Your task to perform on an android device: delete location history Image 0: 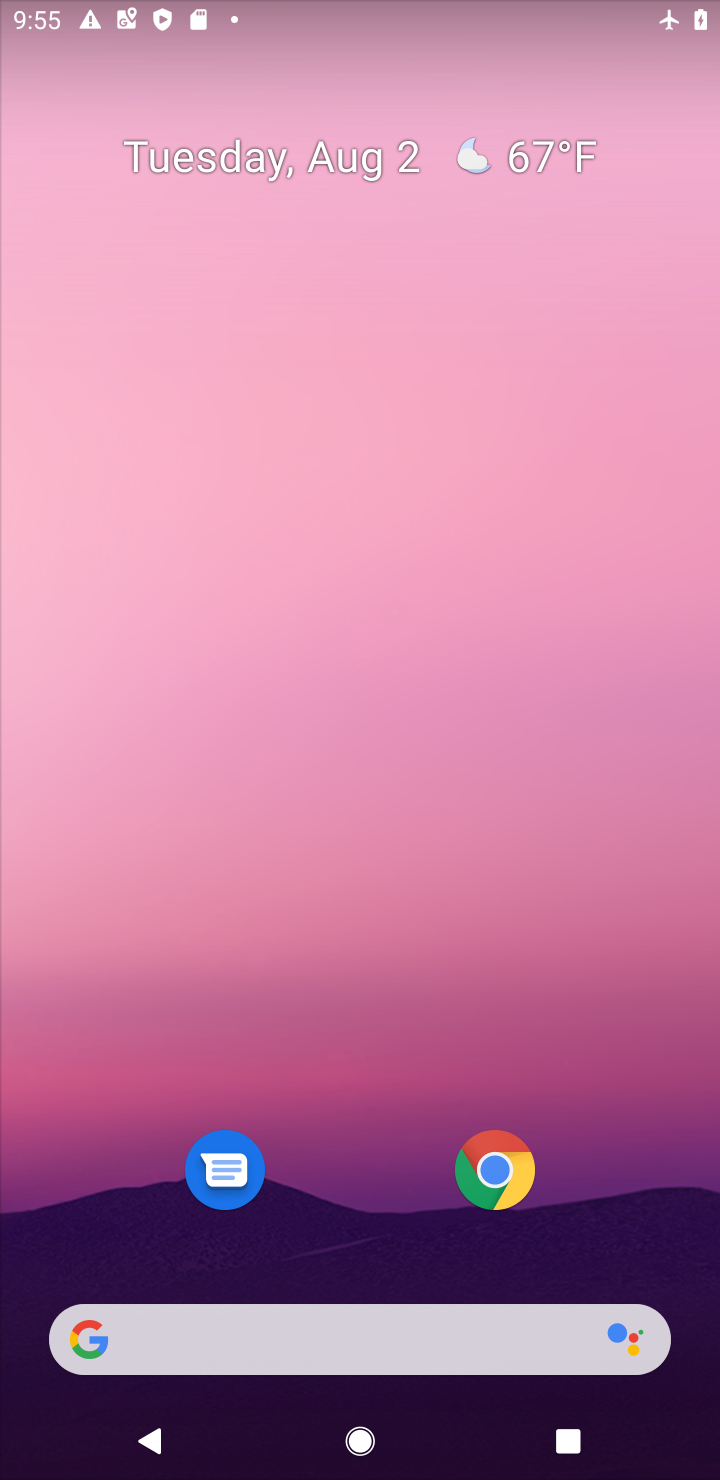
Step 0: drag from (302, 665) to (244, 139)
Your task to perform on an android device: delete location history Image 1: 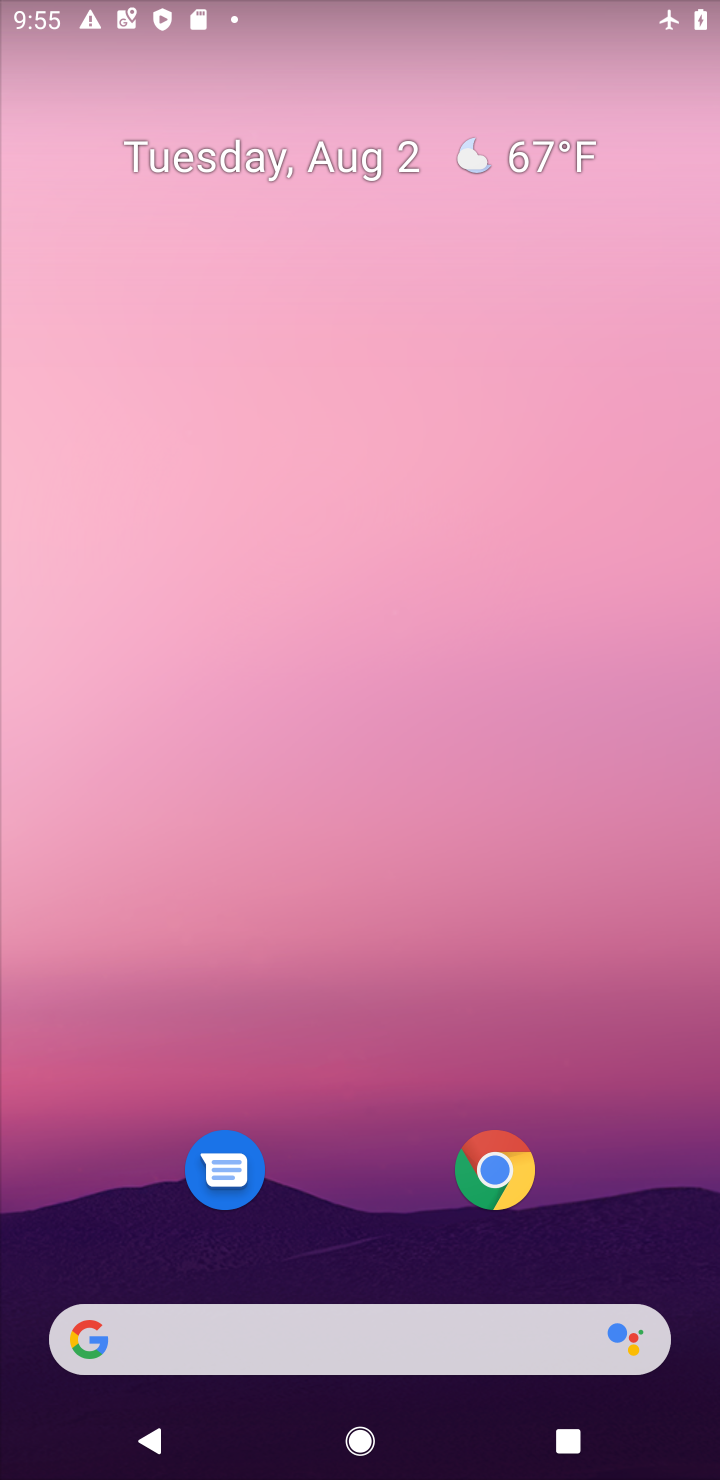
Step 1: drag from (342, 943) to (410, 116)
Your task to perform on an android device: delete location history Image 2: 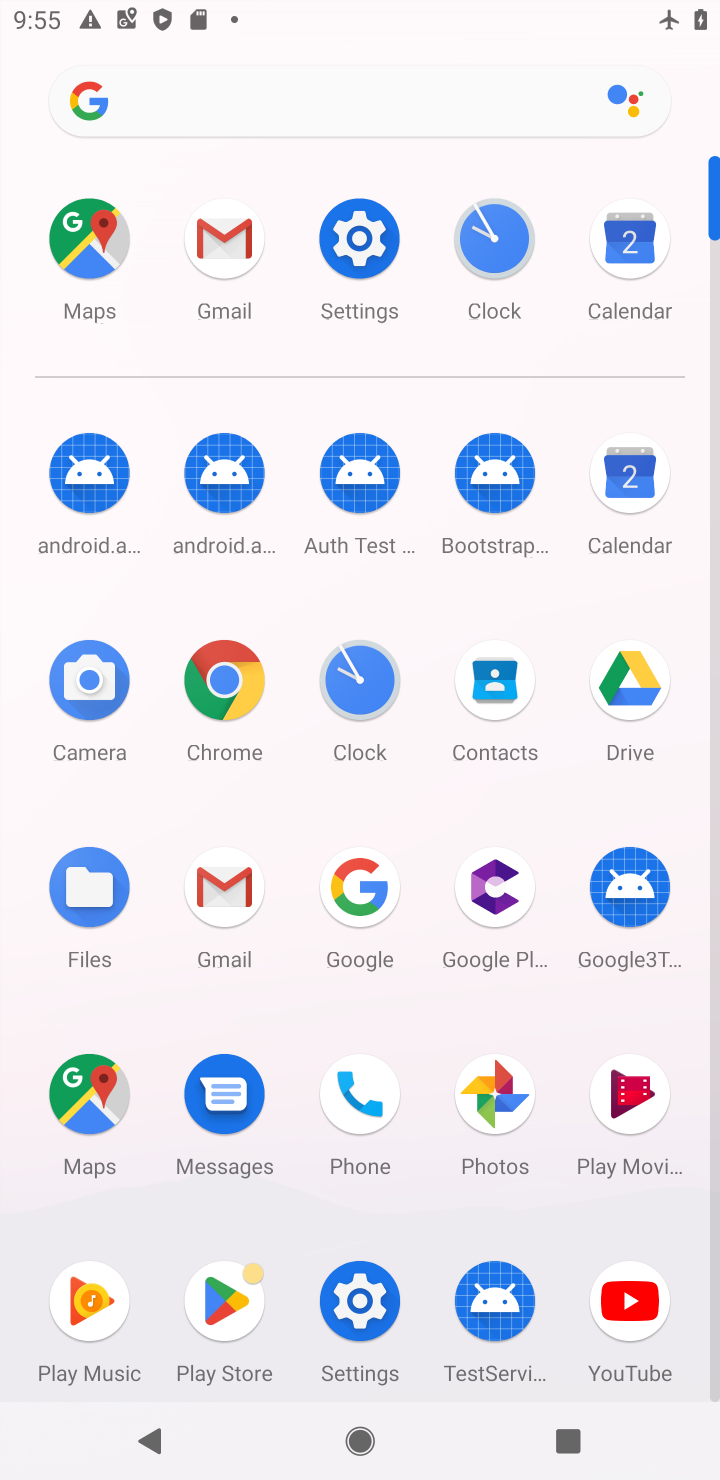
Step 2: click (94, 1122)
Your task to perform on an android device: delete location history Image 3: 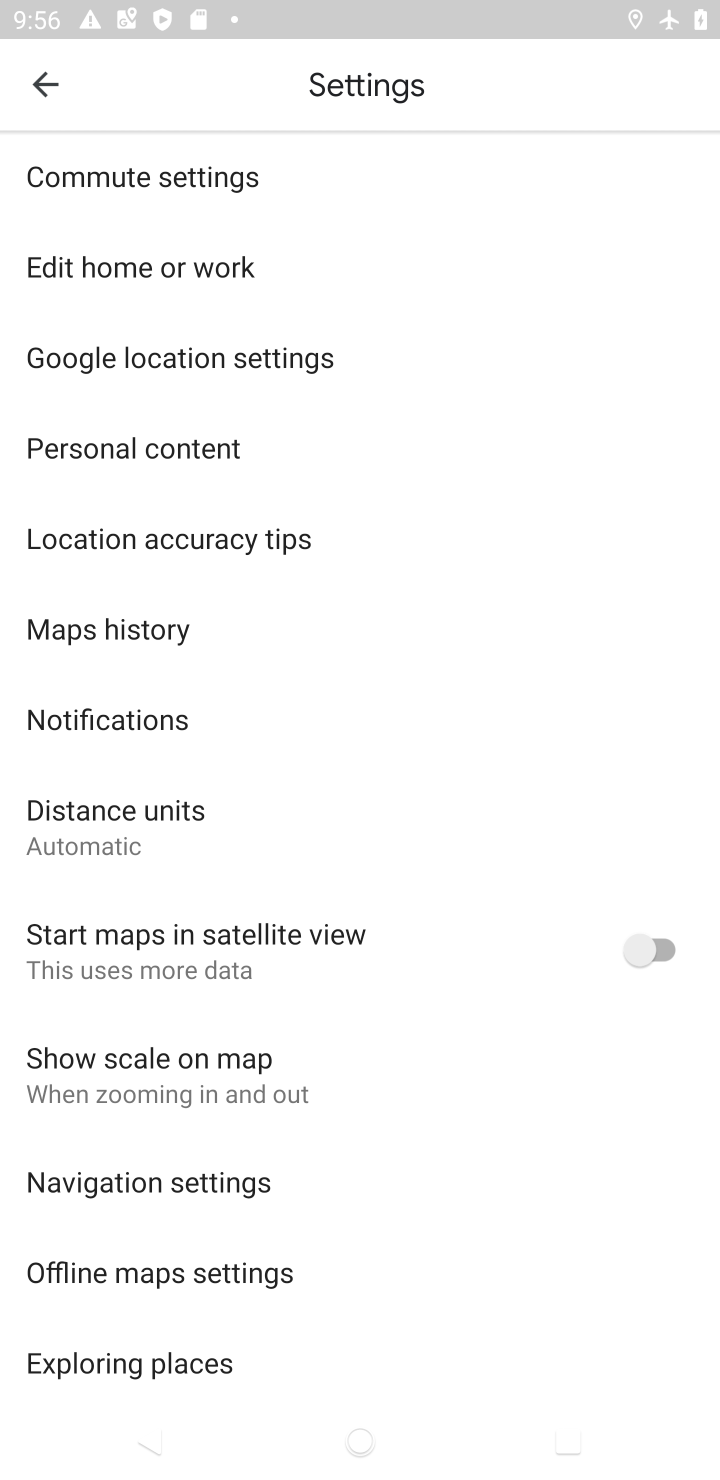
Step 3: click (40, 86)
Your task to perform on an android device: delete location history Image 4: 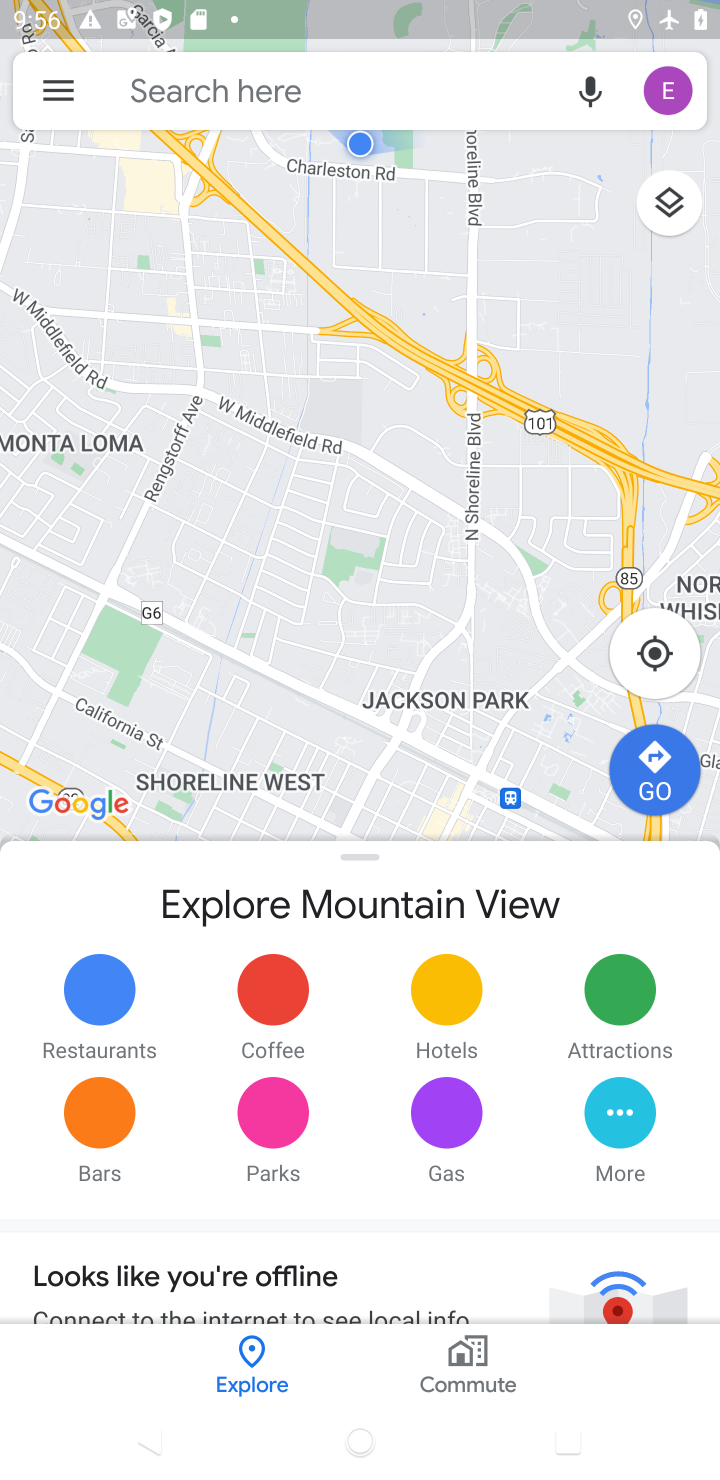
Step 4: click (666, 106)
Your task to perform on an android device: delete location history Image 5: 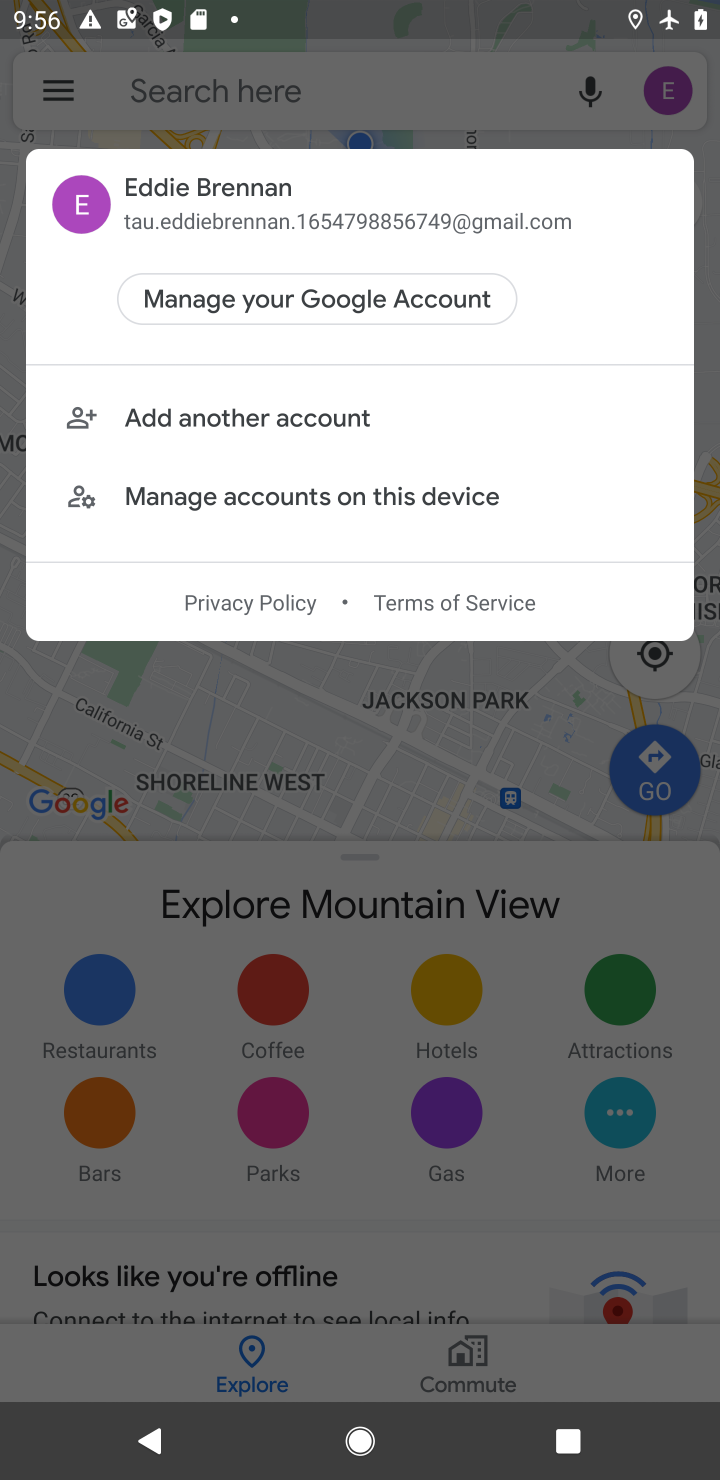
Step 5: click (221, 962)
Your task to perform on an android device: delete location history Image 6: 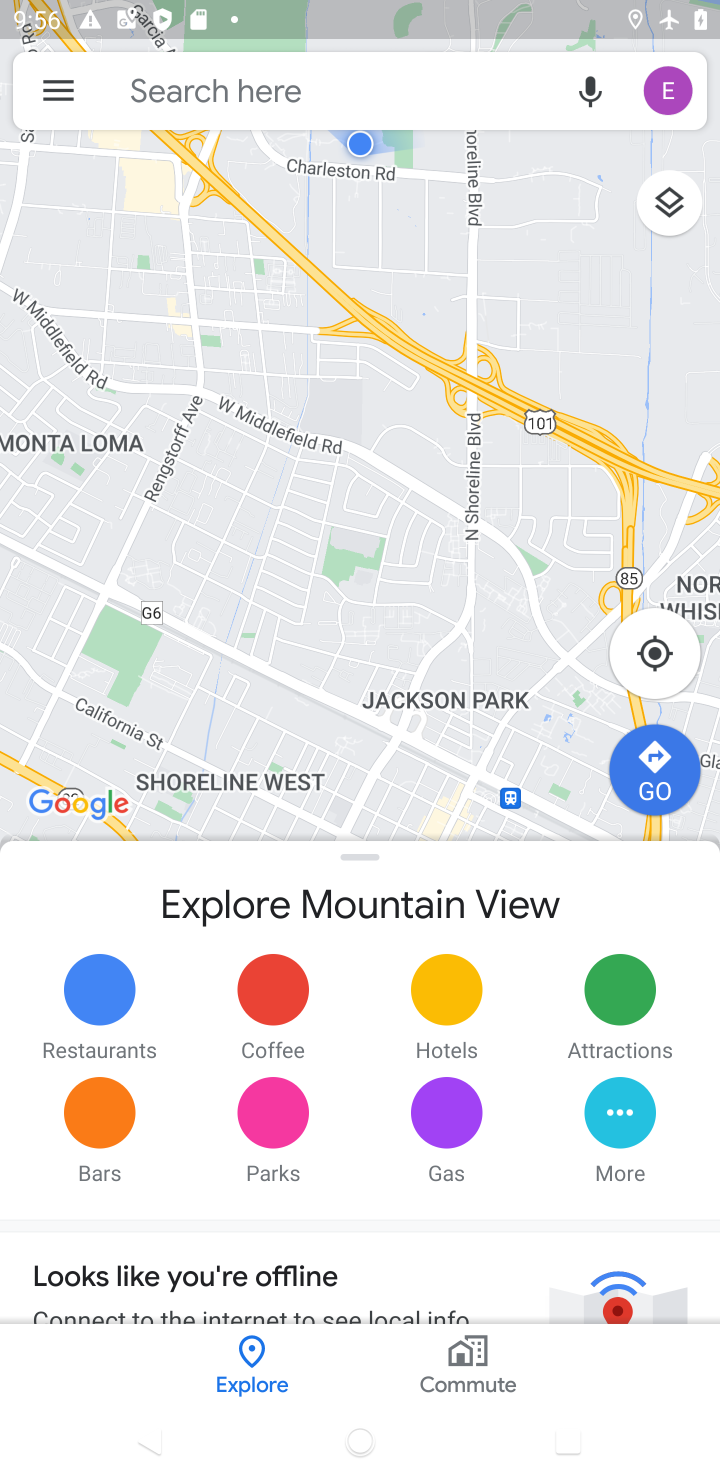
Step 6: click (57, 82)
Your task to perform on an android device: delete location history Image 7: 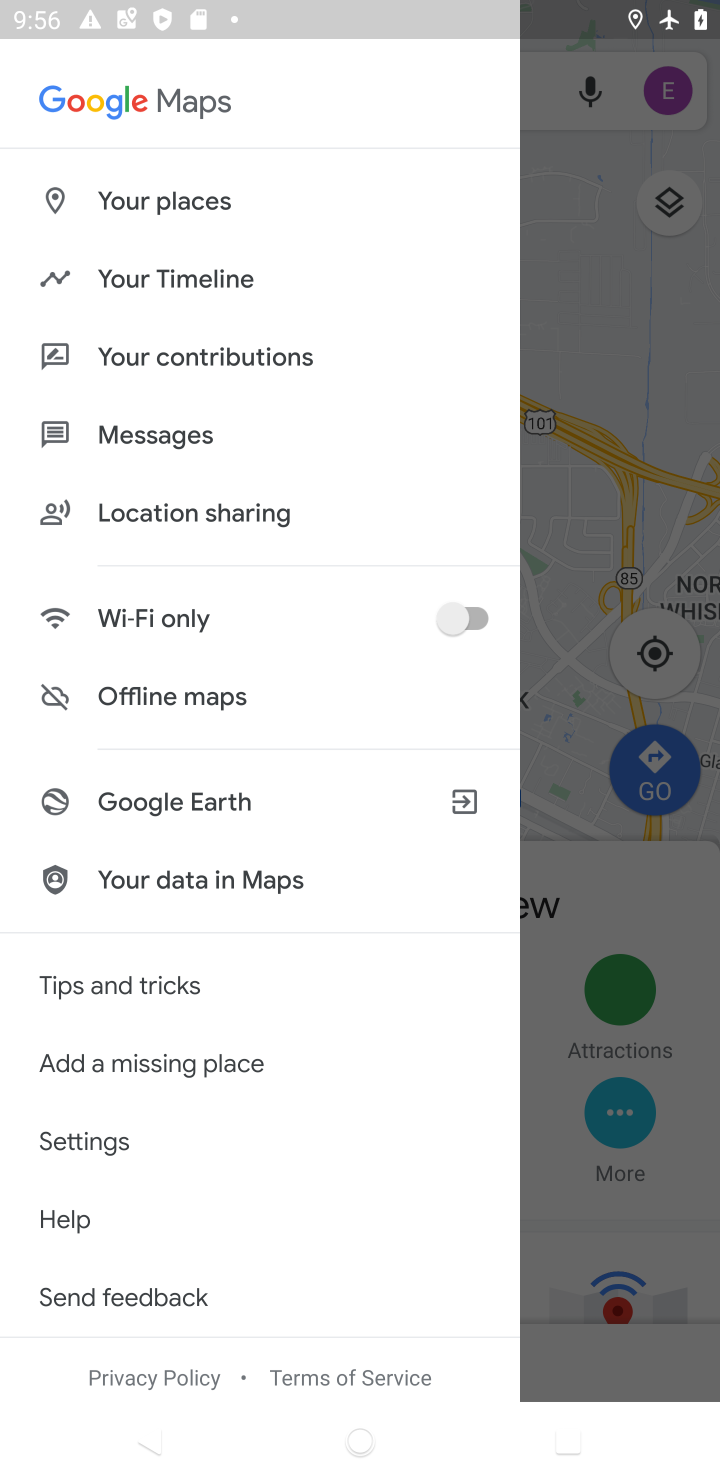
Step 7: click (159, 277)
Your task to perform on an android device: delete location history Image 8: 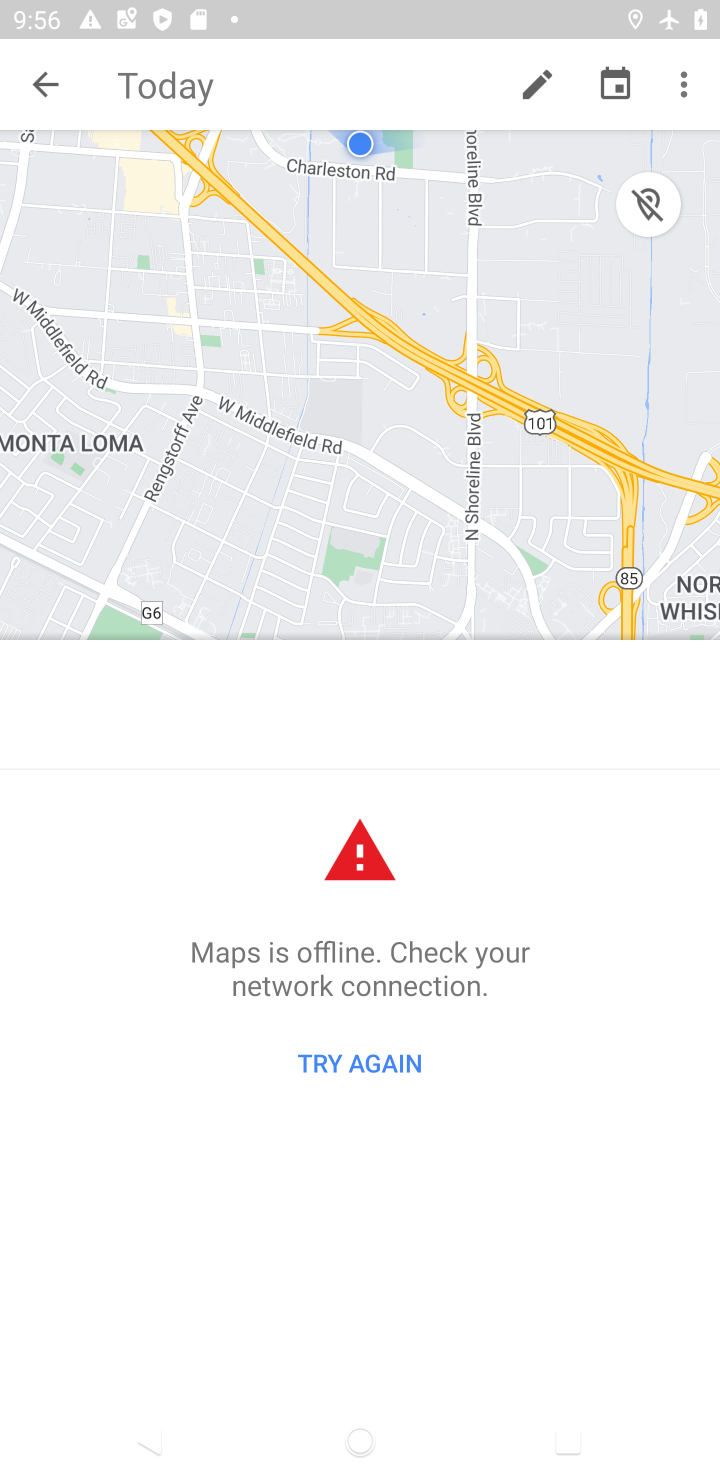
Step 8: click (690, 87)
Your task to perform on an android device: delete location history Image 9: 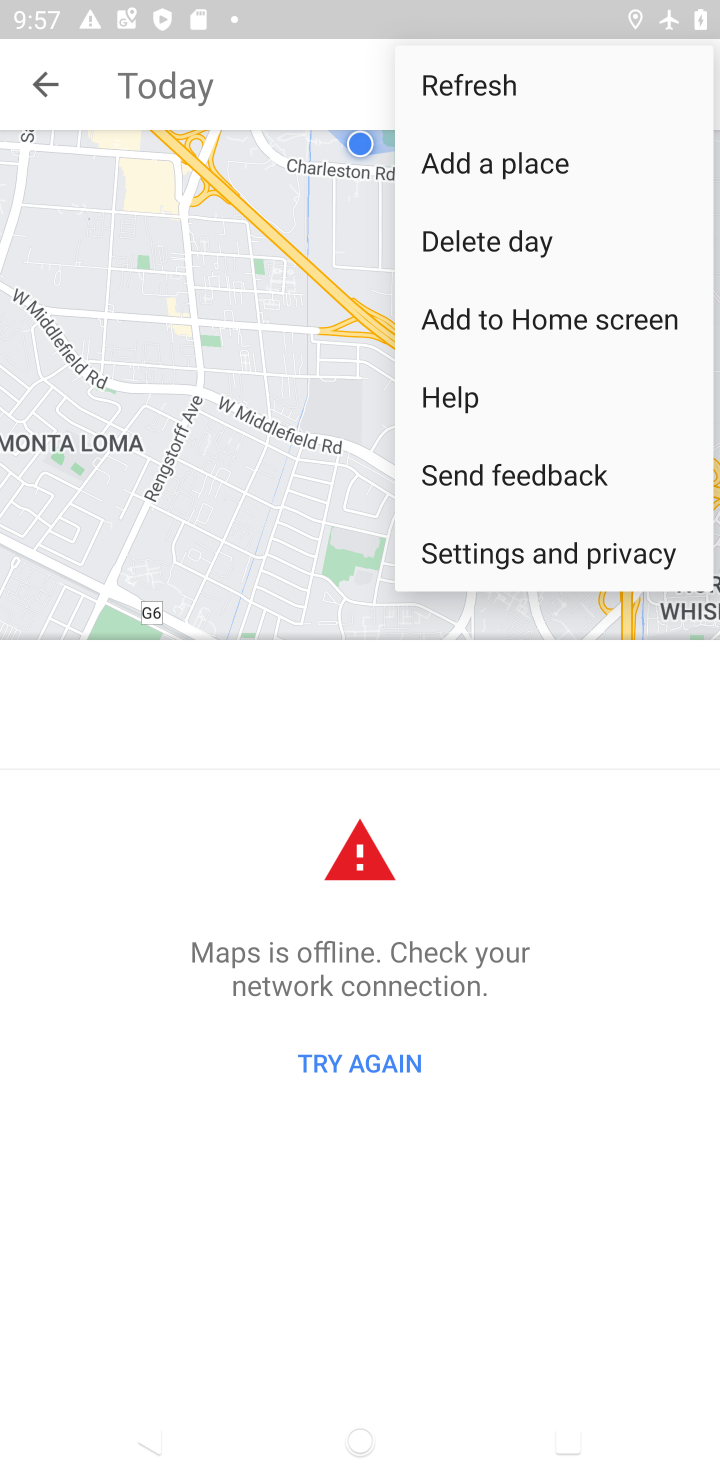
Step 9: click (530, 556)
Your task to perform on an android device: delete location history Image 10: 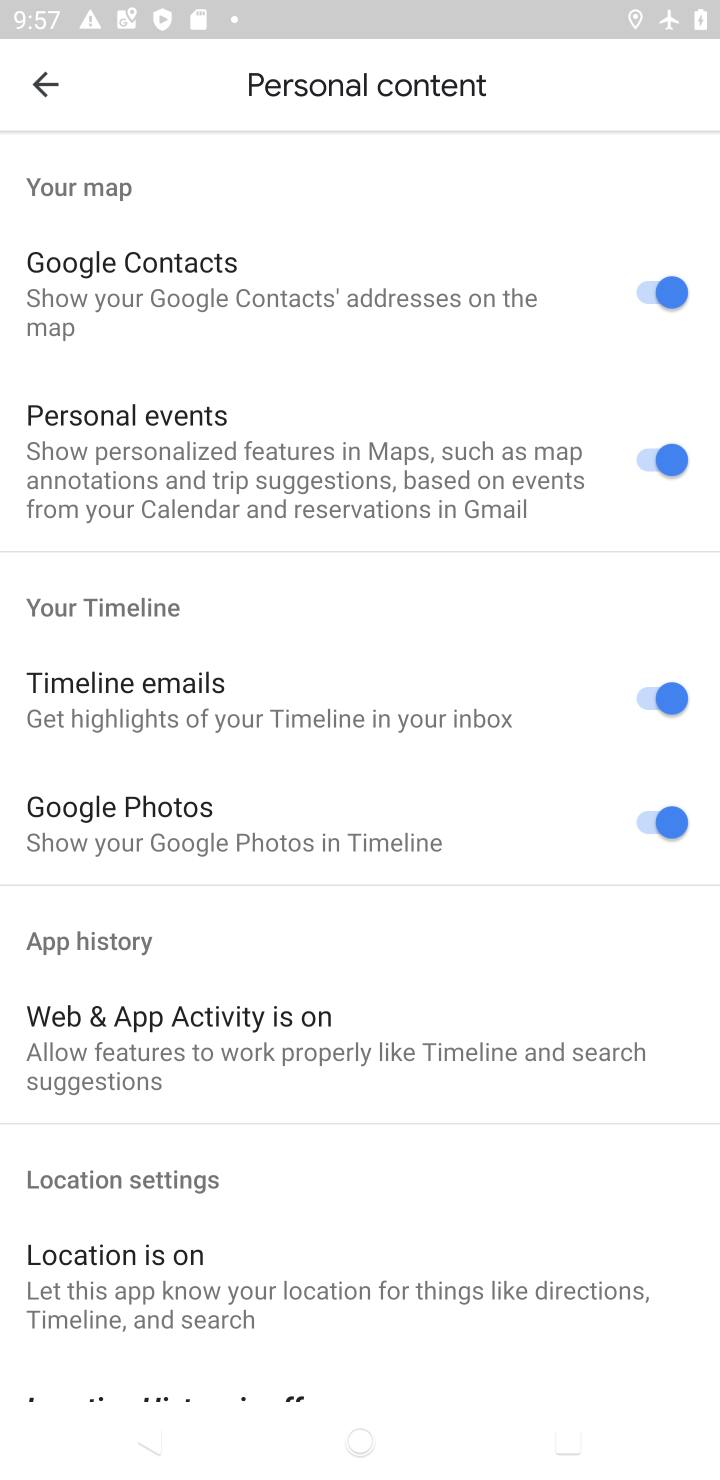
Step 10: drag from (280, 900) to (310, 832)
Your task to perform on an android device: delete location history Image 11: 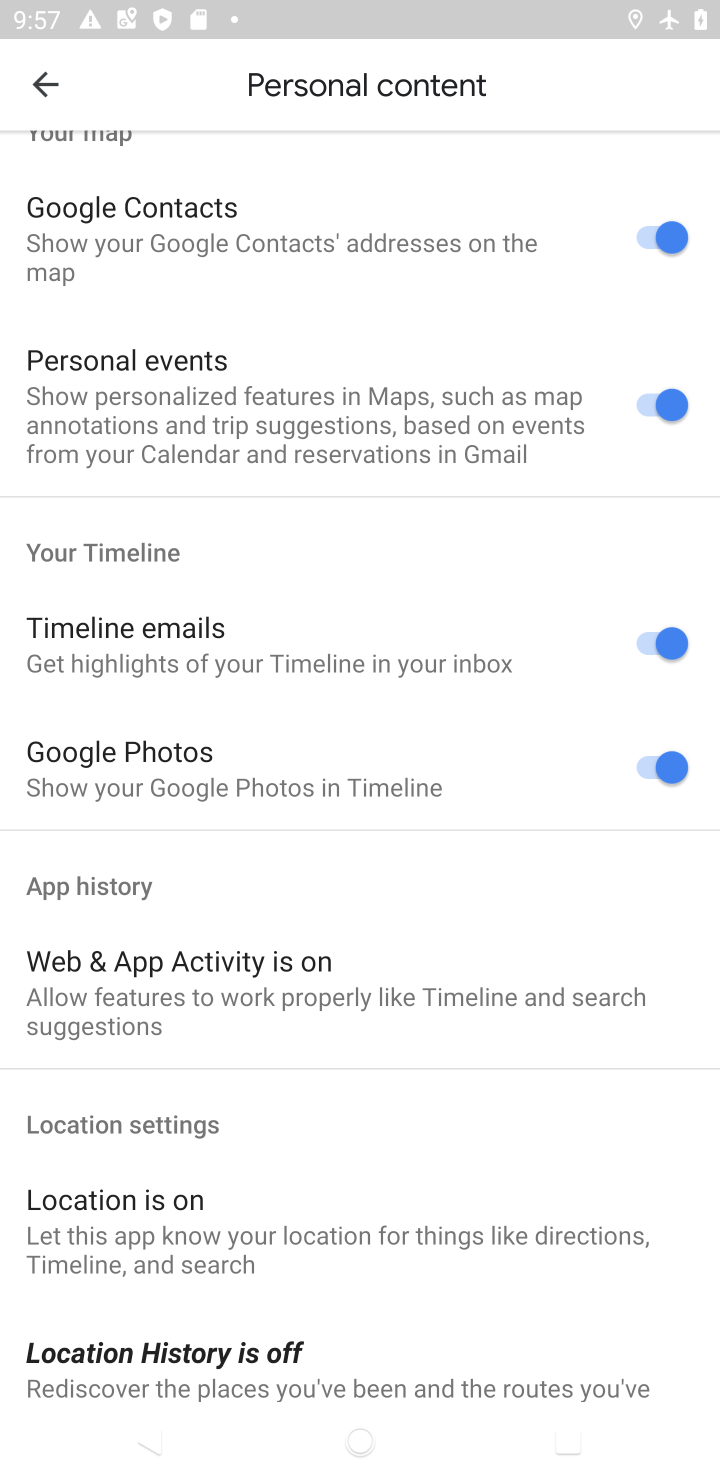
Step 11: drag from (250, 1267) to (318, 600)
Your task to perform on an android device: delete location history Image 12: 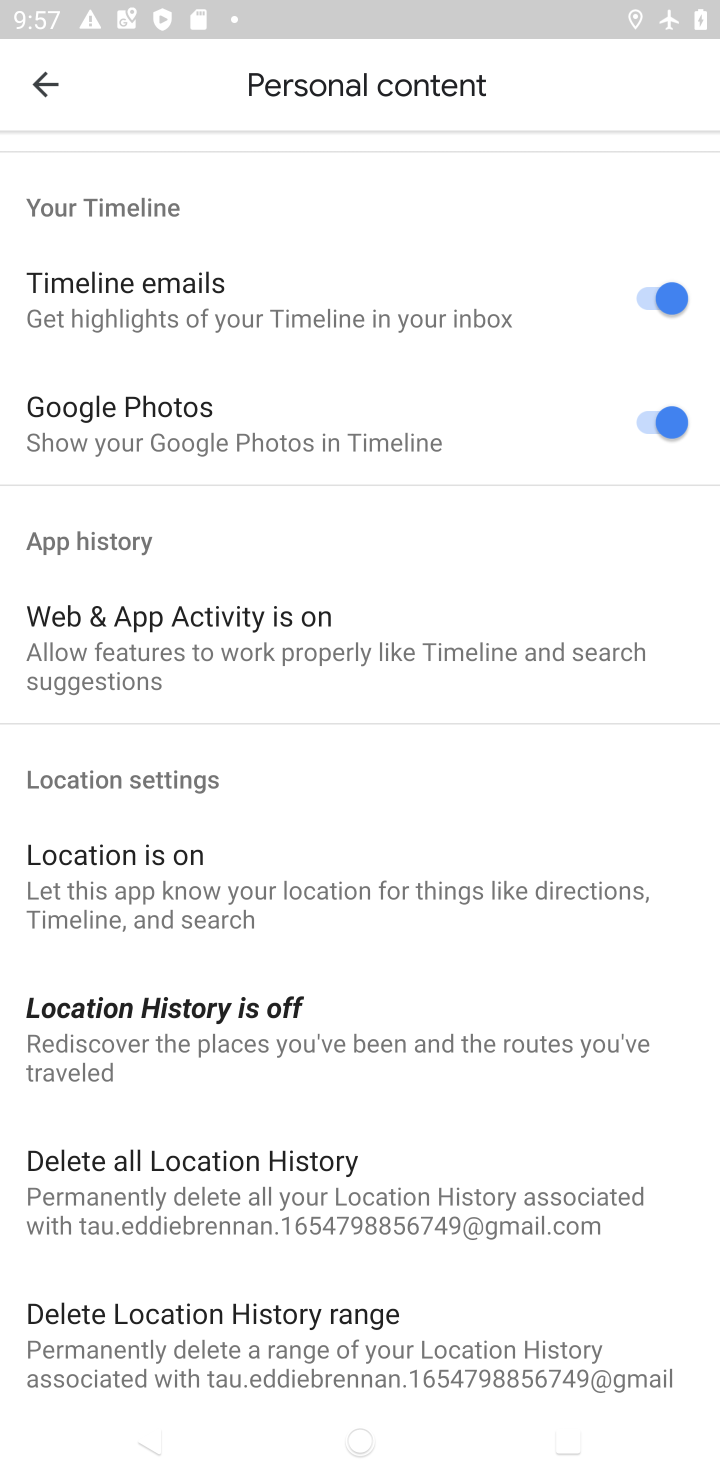
Step 12: click (291, 1199)
Your task to perform on an android device: delete location history Image 13: 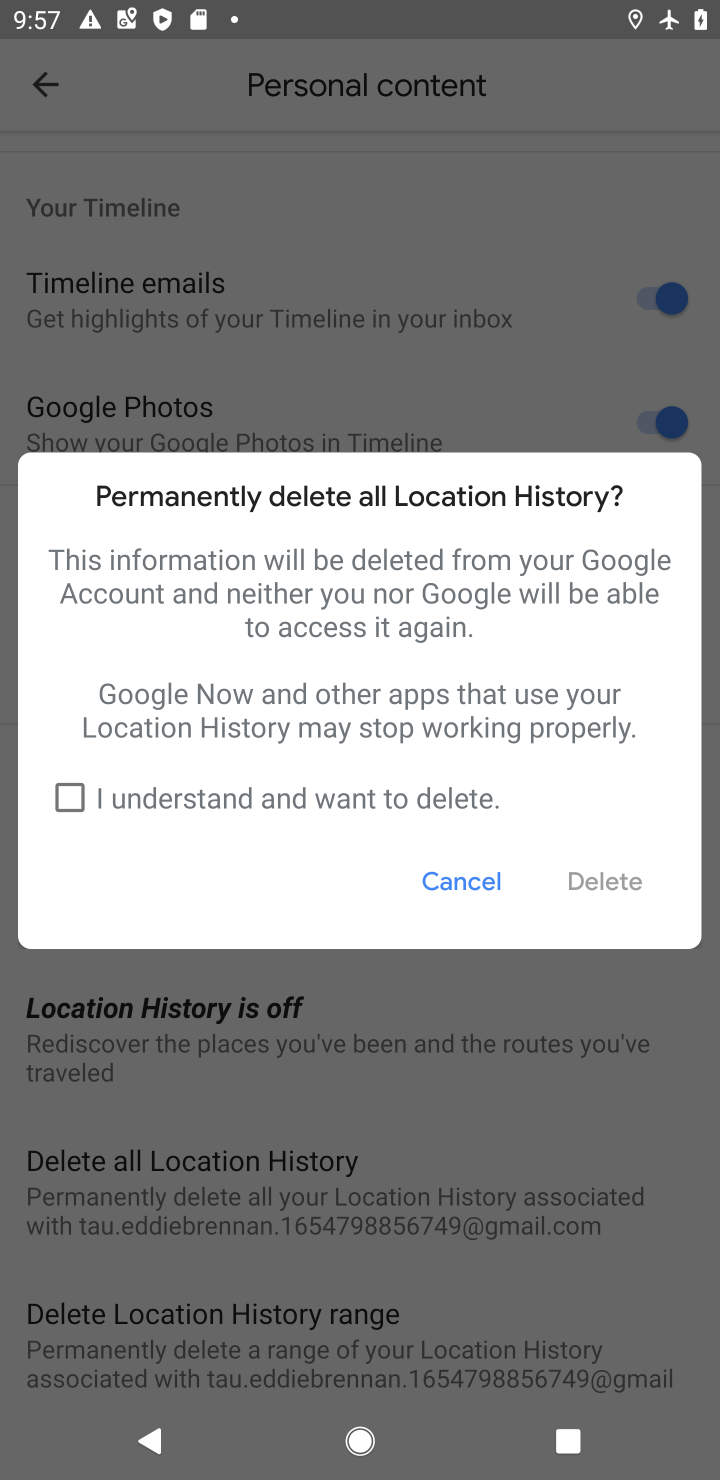
Step 13: click (73, 805)
Your task to perform on an android device: delete location history Image 14: 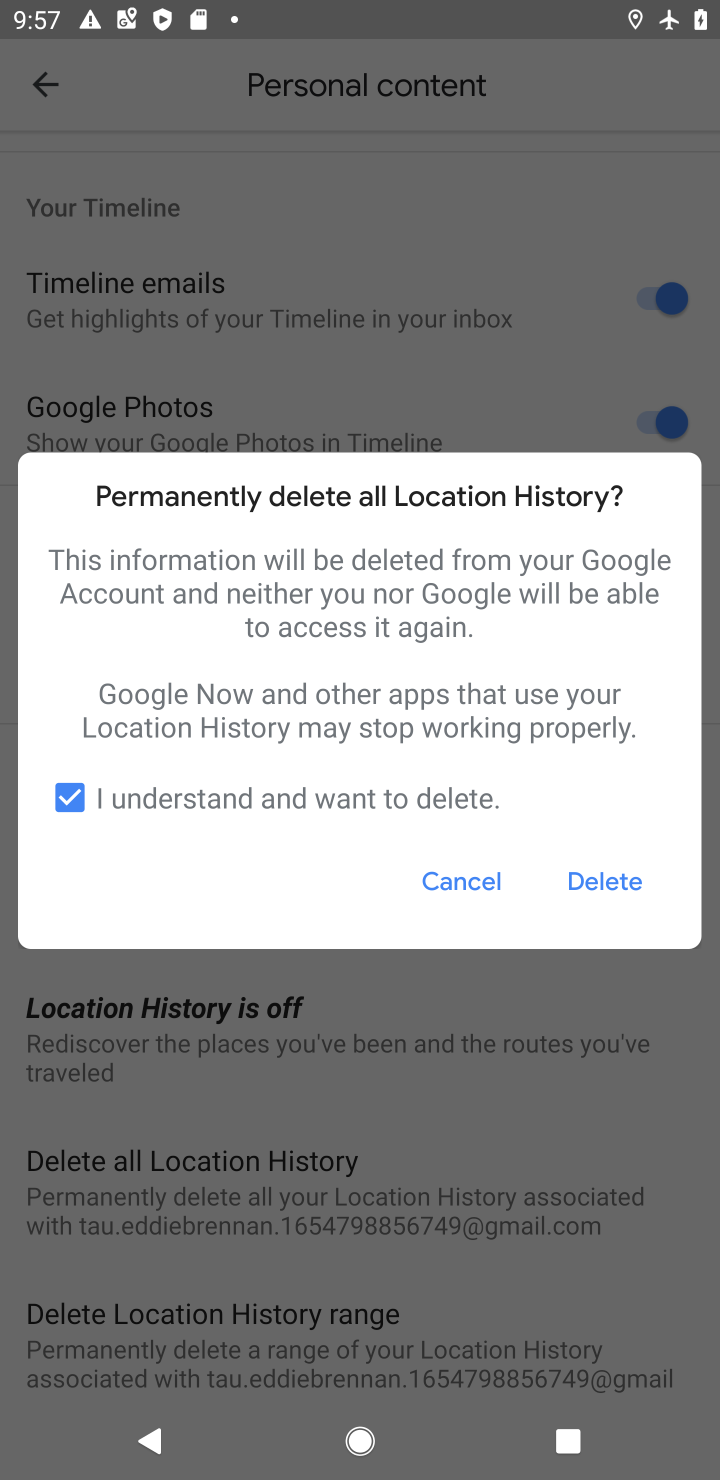
Step 14: click (626, 864)
Your task to perform on an android device: delete location history Image 15: 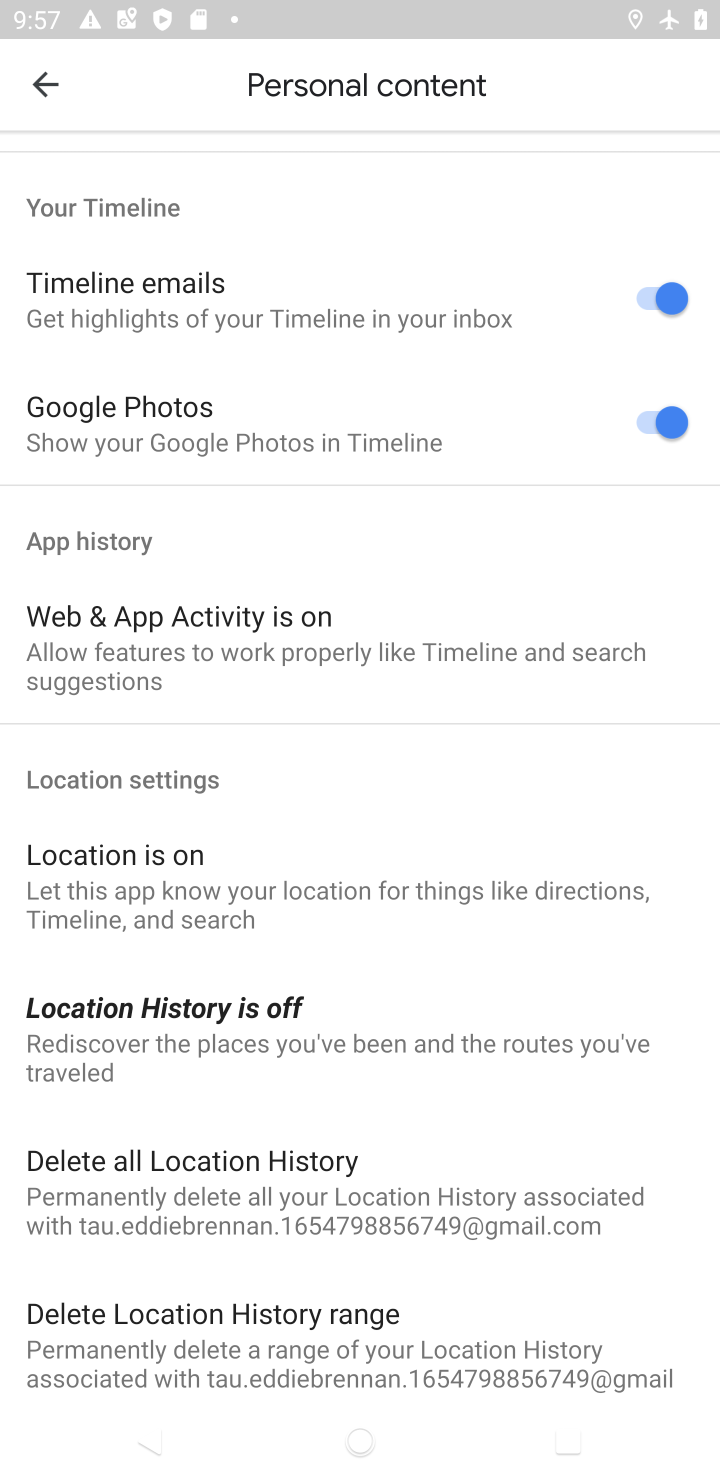
Step 15: task complete